Your task to perform on an android device: toggle notification dots Image 0: 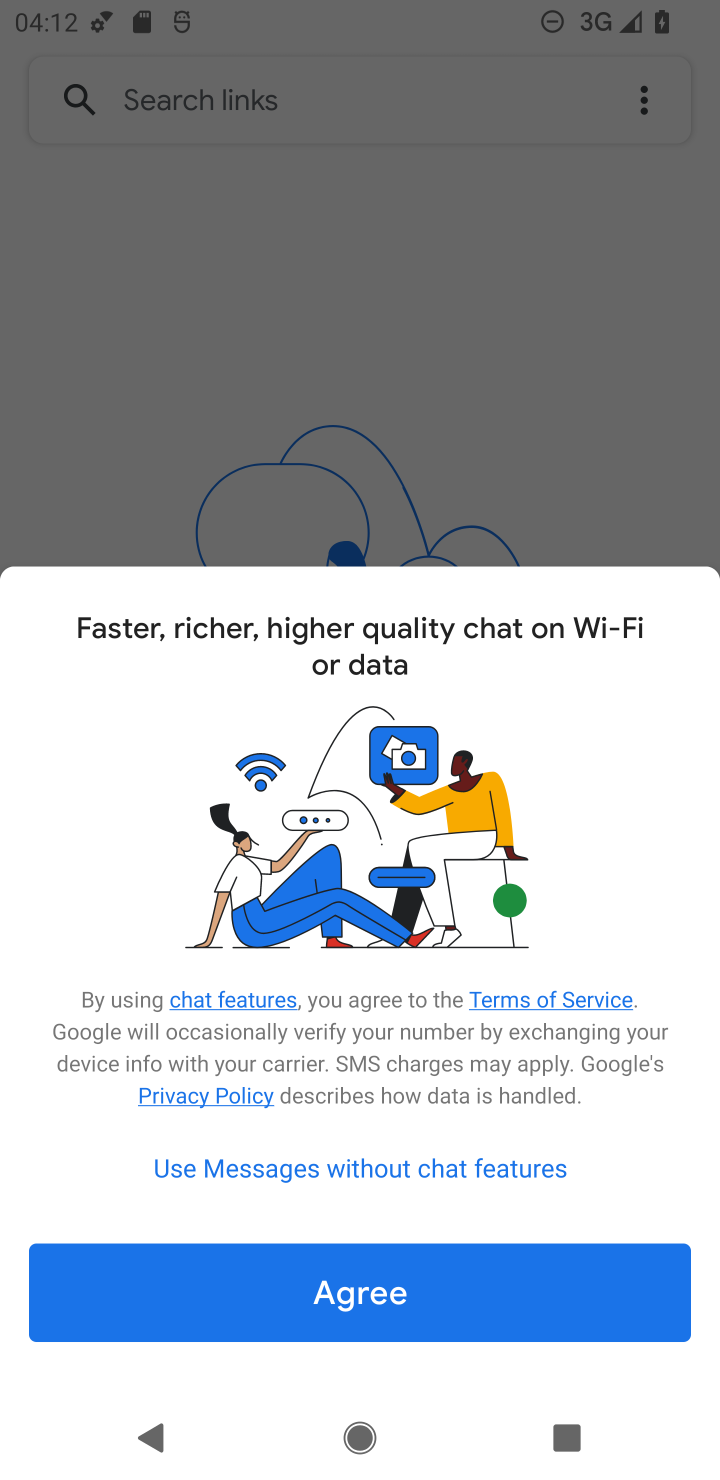
Step 0: press home button
Your task to perform on an android device: toggle notification dots Image 1: 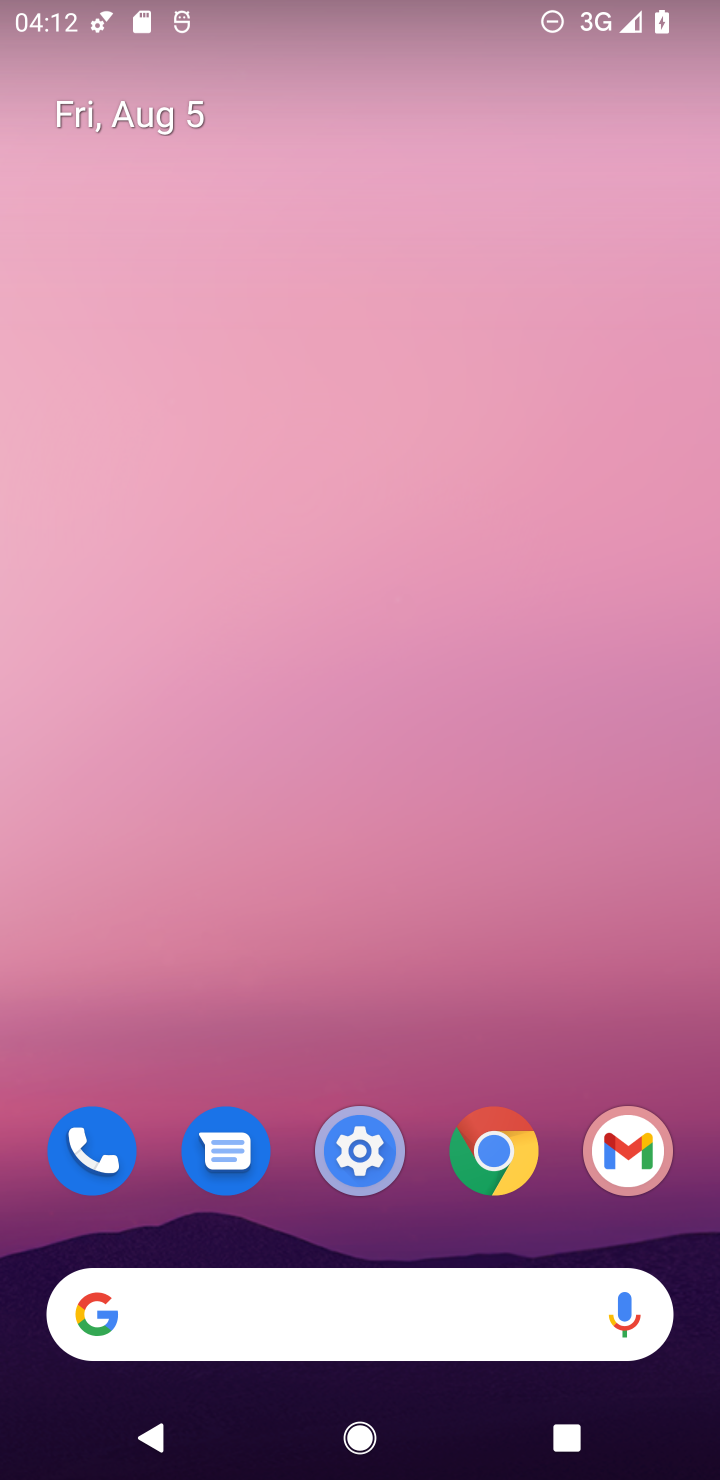
Step 1: click (377, 1121)
Your task to perform on an android device: toggle notification dots Image 2: 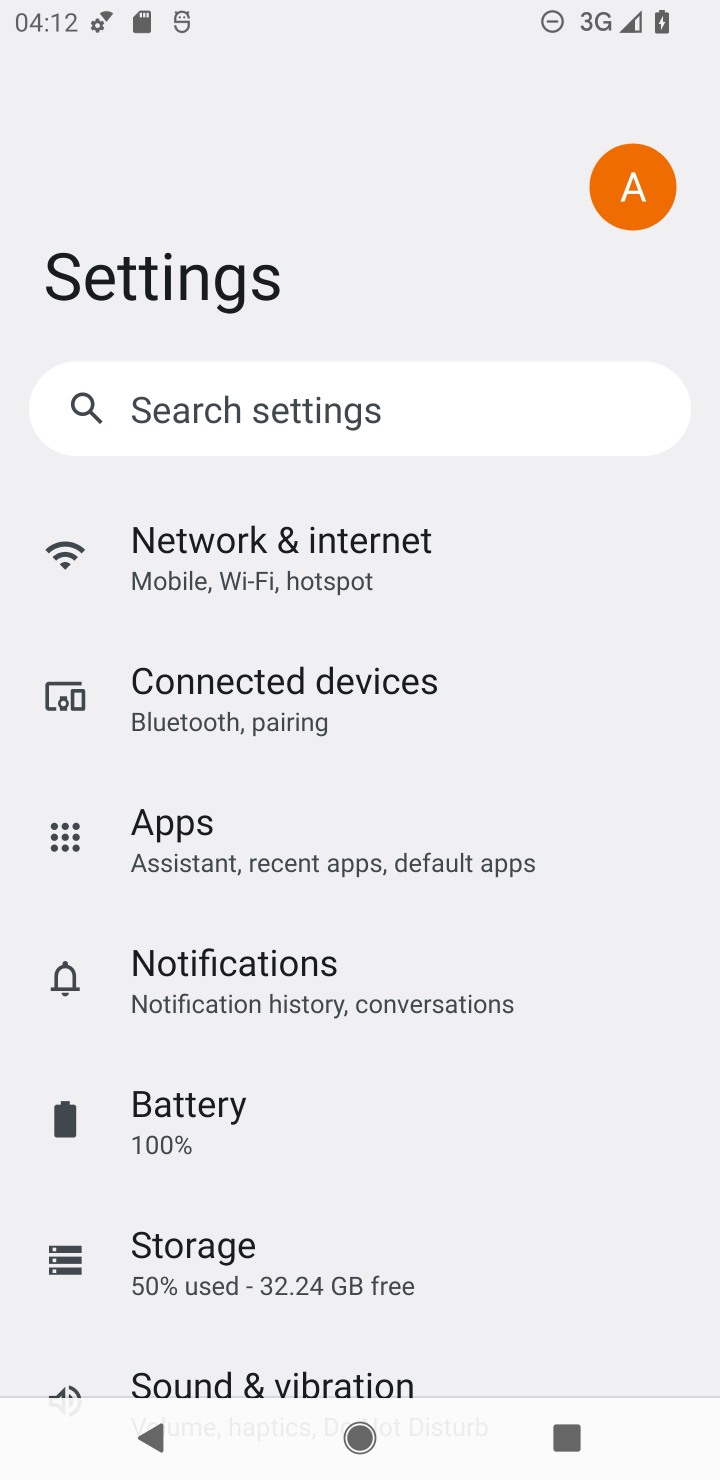
Step 2: click (373, 1004)
Your task to perform on an android device: toggle notification dots Image 3: 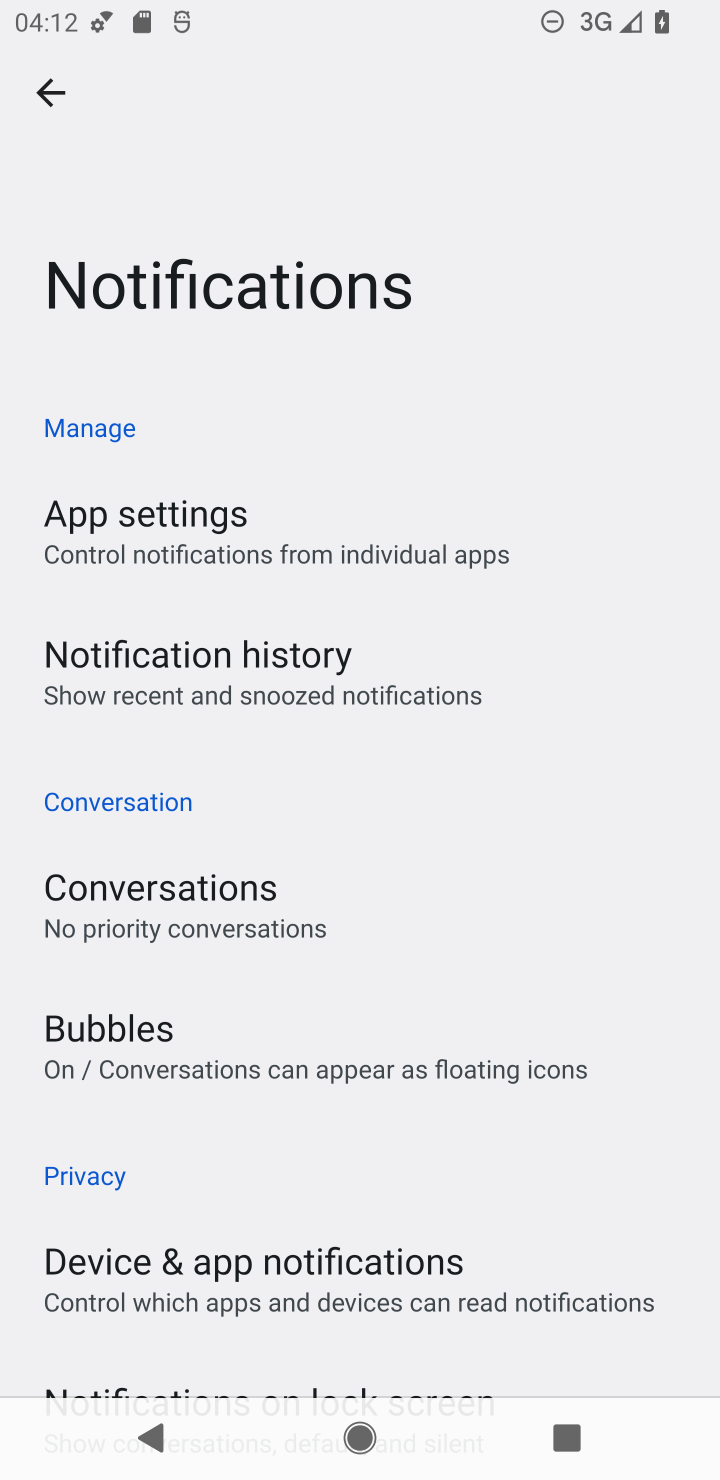
Step 3: drag from (423, 1320) to (309, 243)
Your task to perform on an android device: toggle notification dots Image 4: 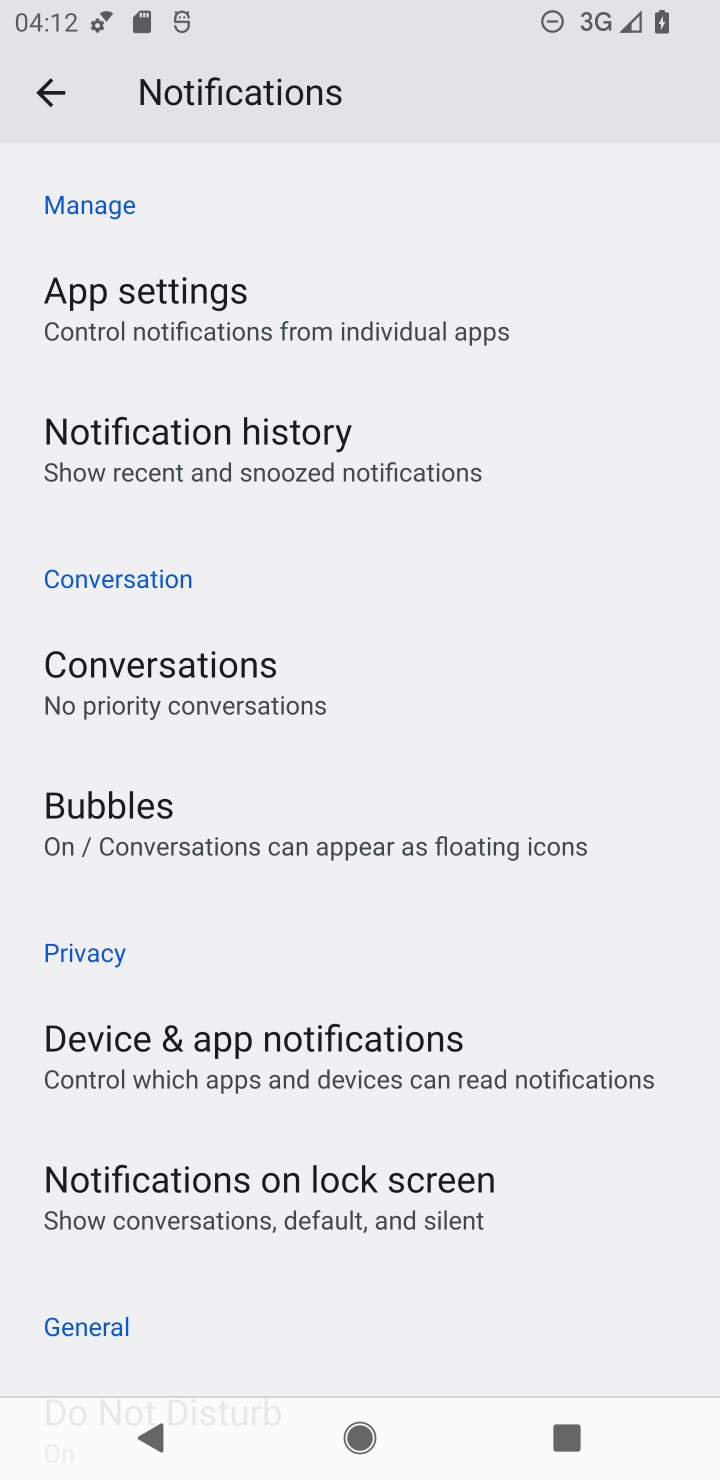
Step 4: drag from (333, 486) to (304, 15)
Your task to perform on an android device: toggle notification dots Image 5: 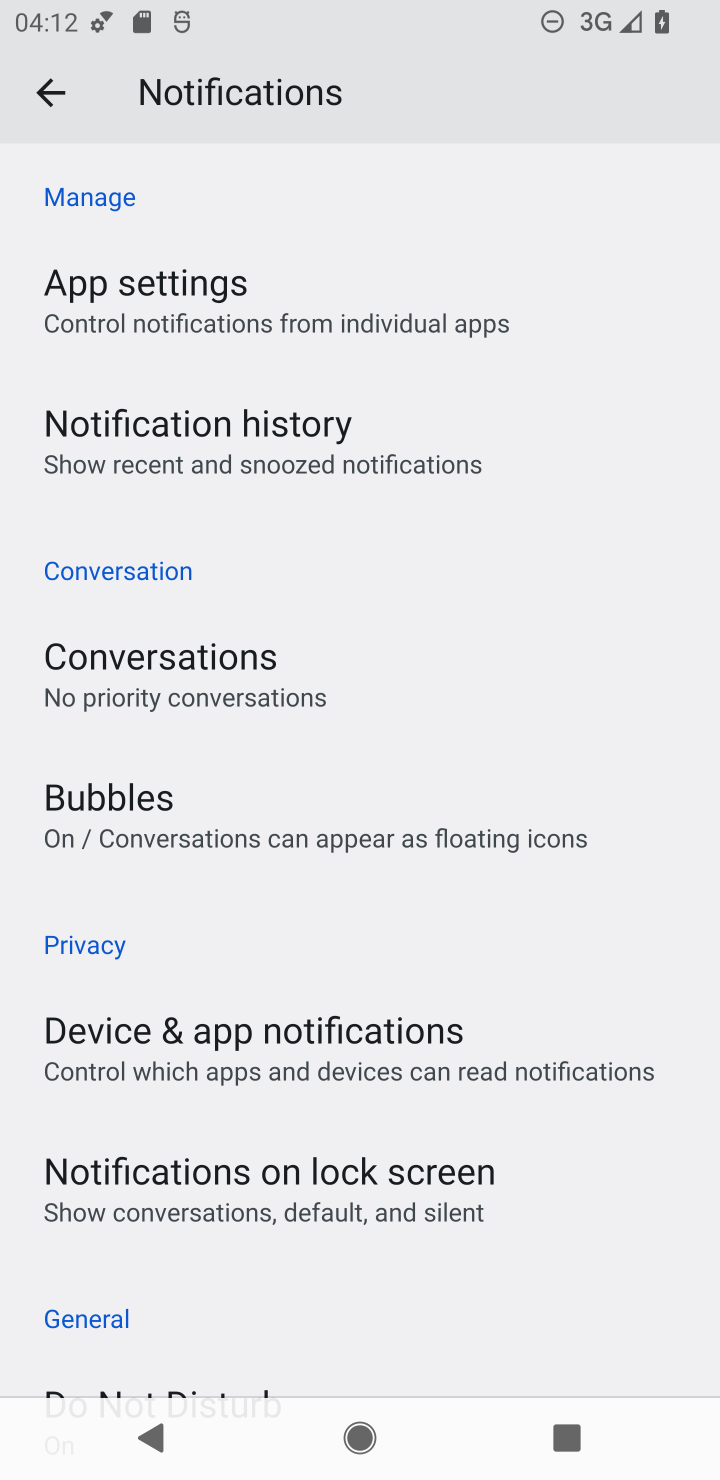
Step 5: drag from (242, 1359) to (211, 664)
Your task to perform on an android device: toggle notification dots Image 6: 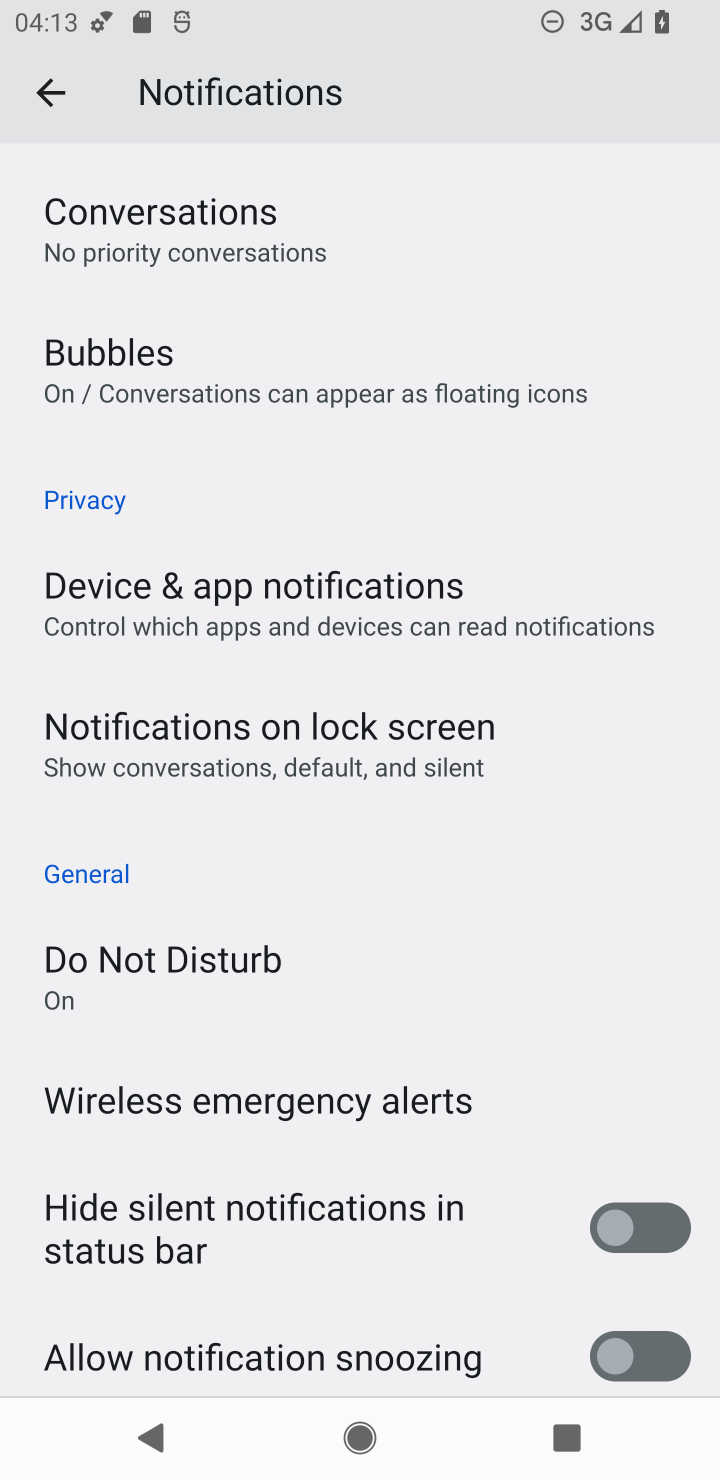
Step 6: drag from (396, 1300) to (396, 640)
Your task to perform on an android device: toggle notification dots Image 7: 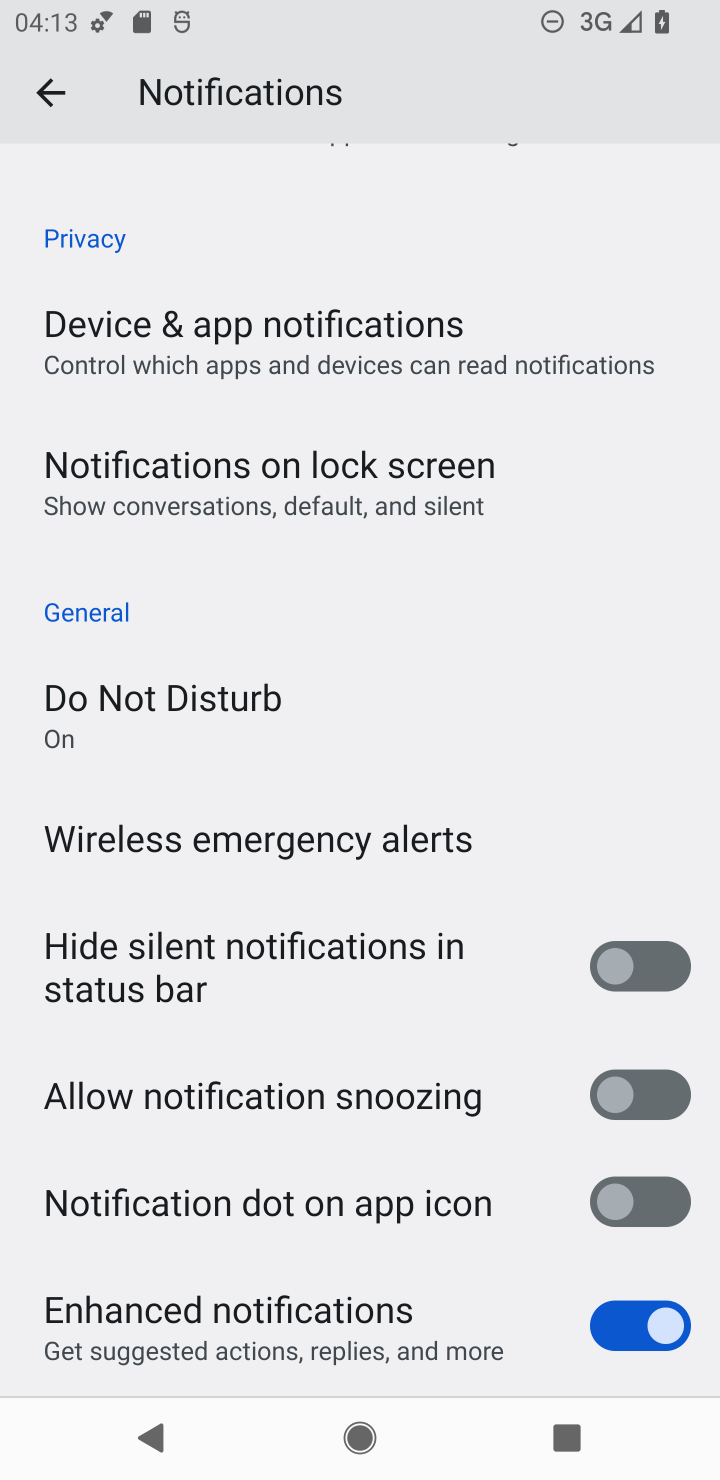
Step 7: click (645, 1212)
Your task to perform on an android device: toggle notification dots Image 8: 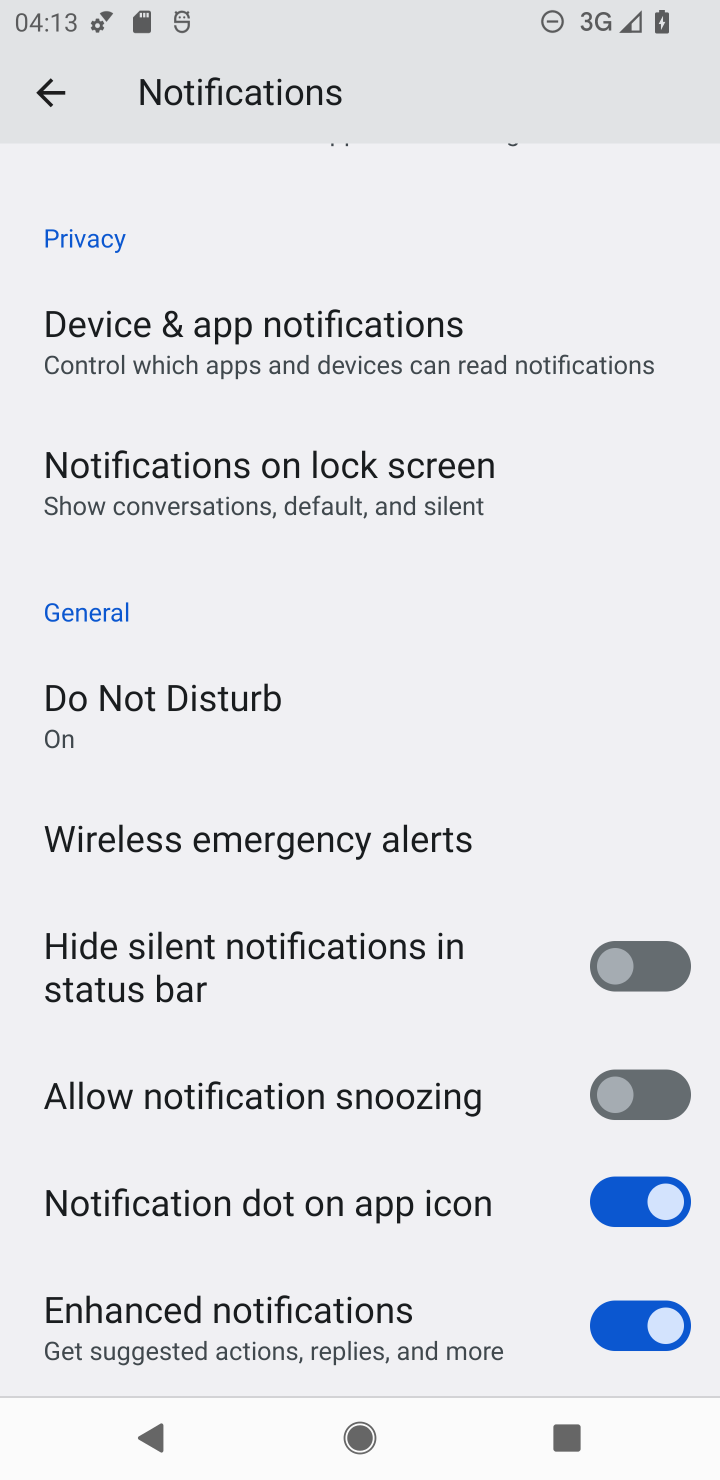
Step 8: task complete